Your task to perform on an android device: find photos in the google photos app Image 0: 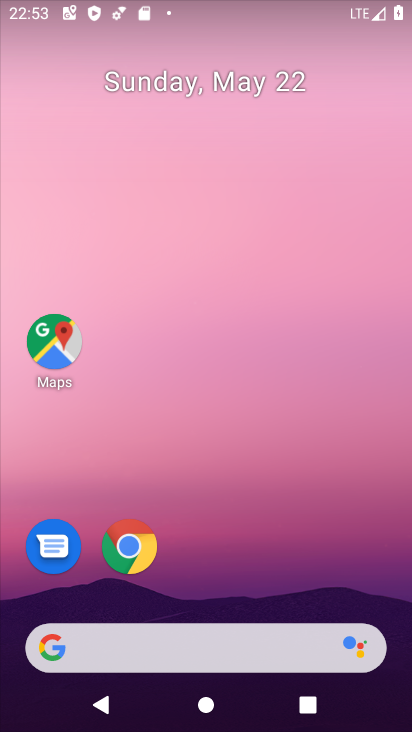
Step 0: drag from (308, 269) to (362, 101)
Your task to perform on an android device: find photos in the google photos app Image 1: 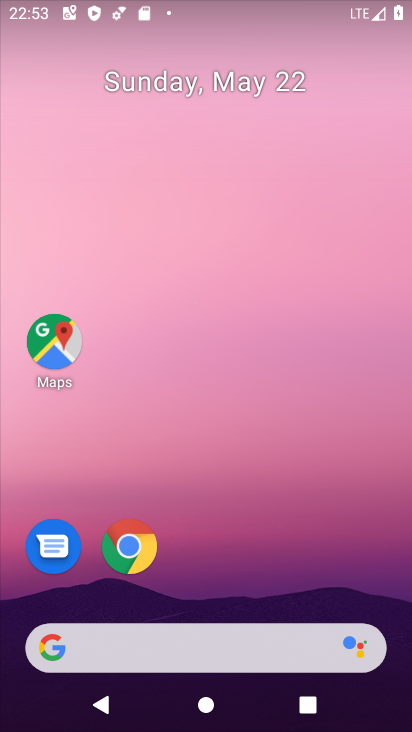
Step 1: drag from (184, 561) to (206, 124)
Your task to perform on an android device: find photos in the google photos app Image 2: 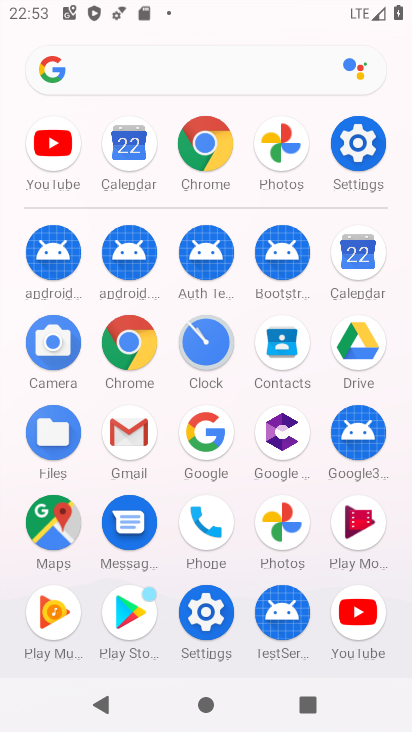
Step 2: click (274, 523)
Your task to perform on an android device: find photos in the google photos app Image 3: 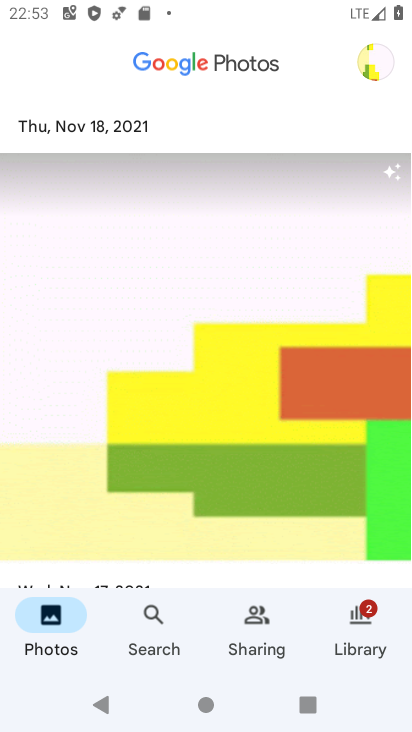
Step 3: press back button
Your task to perform on an android device: find photos in the google photos app Image 4: 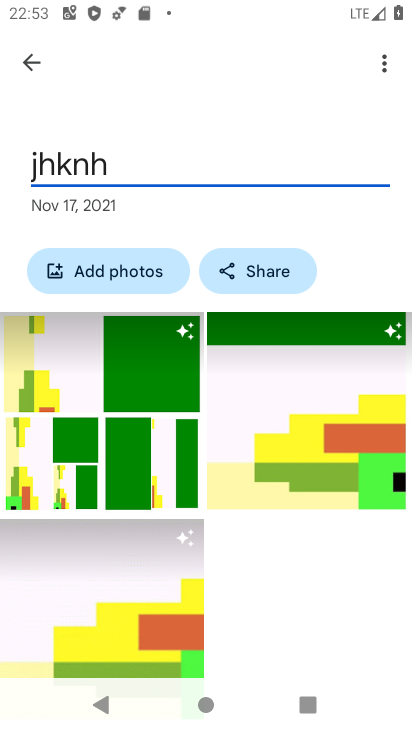
Step 4: drag from (187, 554) to (240, 195)
Your task to perform on an android device: find photos in the google photos app Image 5: 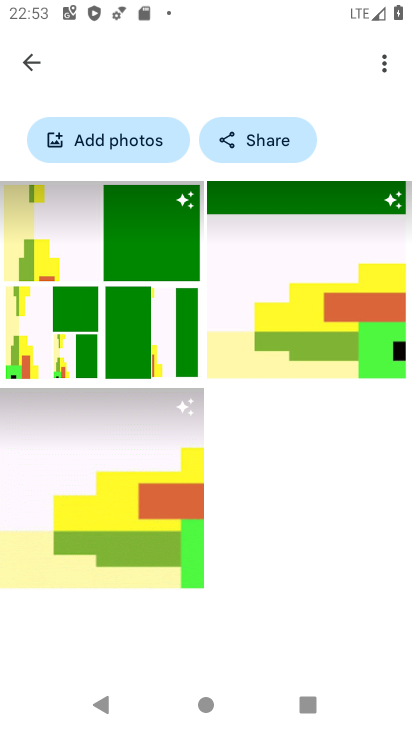
Step 5: press back button
Your task to perform on an android device: find photos in the google photos app Image 6: 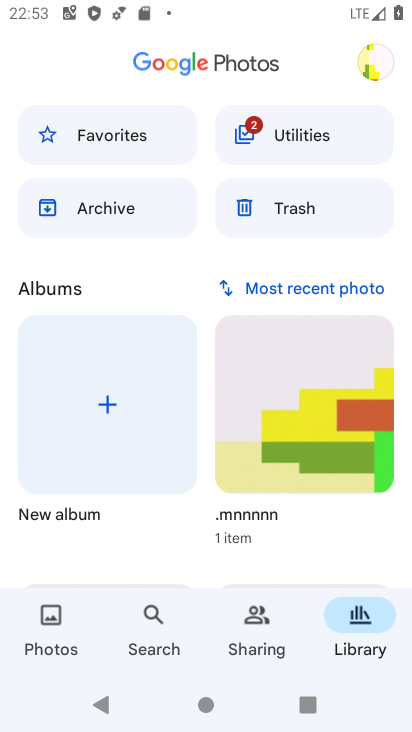
Step 6: drag from (204, 279) to (218, 716)
Your task to perform on an android device: find photos in the google photos app Image 7: 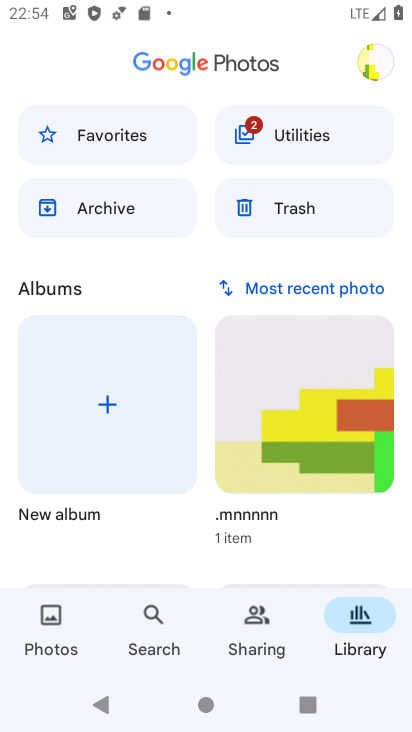
Step 7: click (172, 596)
Your task to perform on an android device: find photos in the google photos app Image 8: 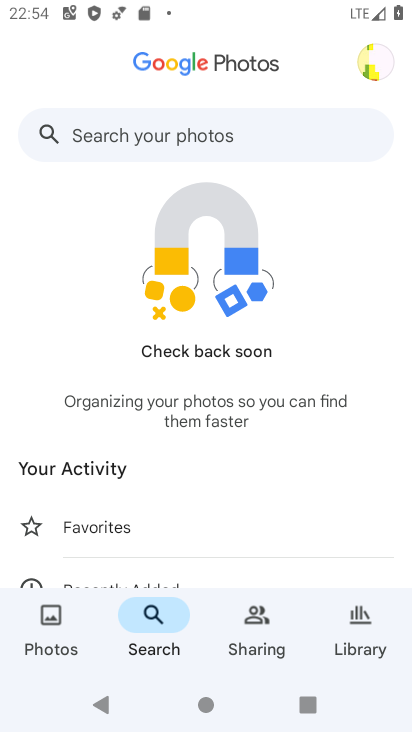
Step 8: click (56, 637)
Your task to perform on an android device: find photos in the google photos app Image 9: 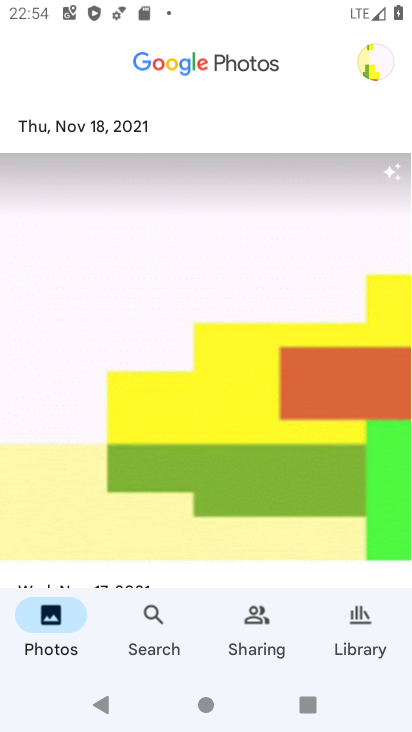
Step 9: drag from (169, 495) to (303, 195)
Your task to perform on an android device: find photos in the google photos app Image 10: 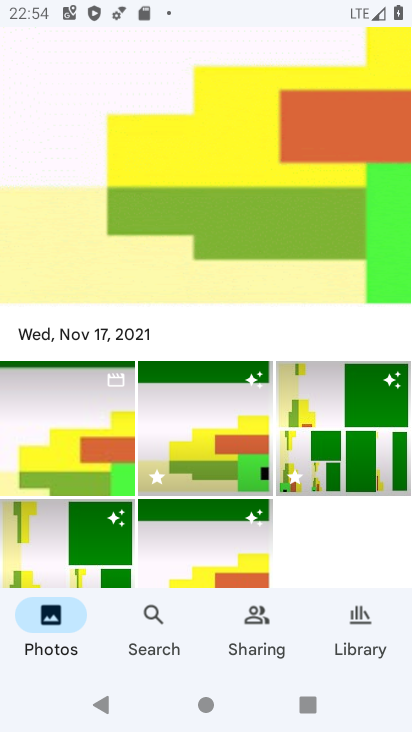
Step 10: drag from (270, 520) to (345, 205)
Your task to perform on an android device: find photos in the google photos app Image 11: 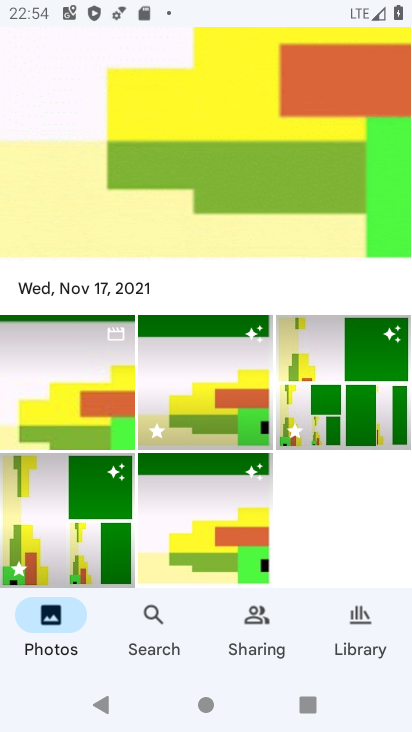
Step 11: click (90, 385)
Your task to perform on an android device: find photos in the google photos app Image 12: 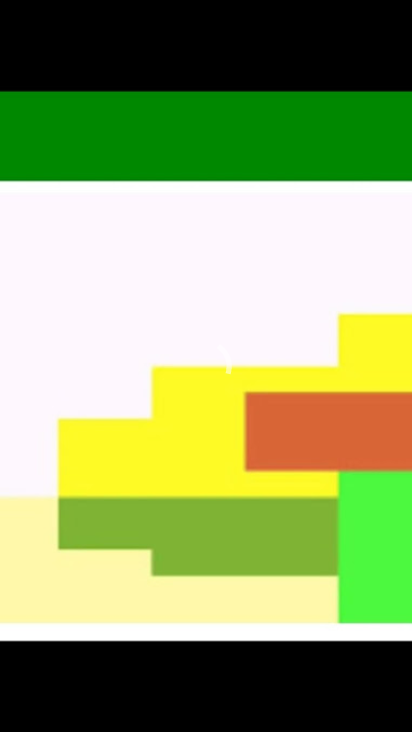
Step 12: task complete